Your task to perform on an android device: Go to sound settings Image 0: 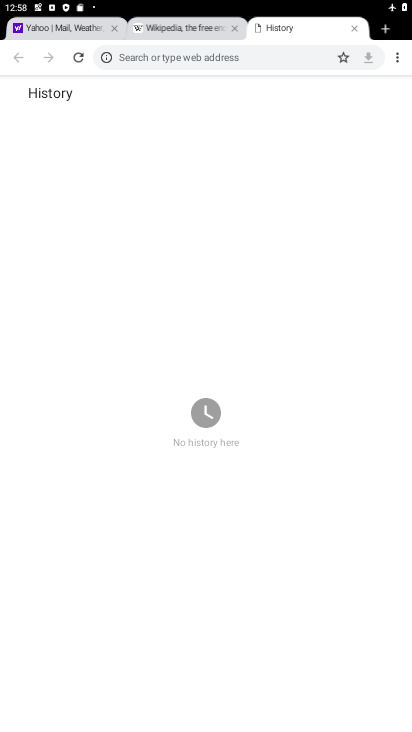
Step 0: press home button
Your task to perform on an android device: Go to sound settings Image 1: 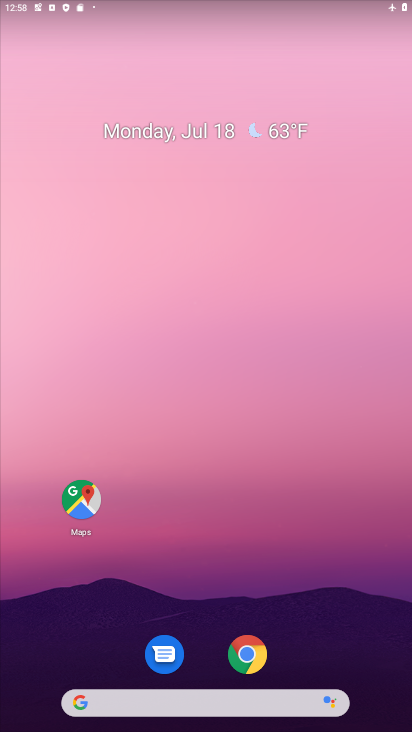
Step 1: drag from (183, 582) to (204, 193)
Your task to perform on an android device: Go to sound settings Image 2: 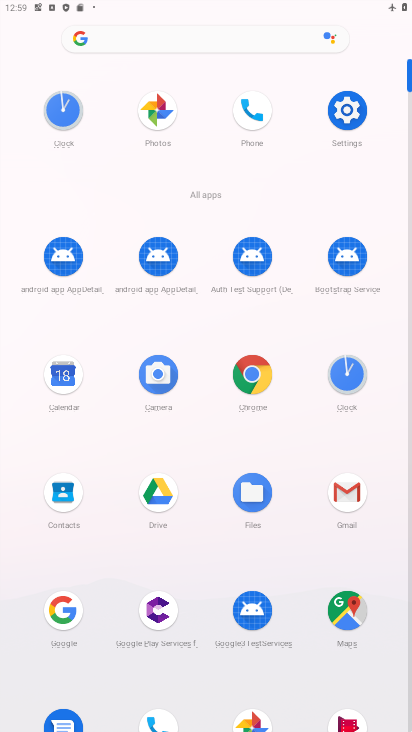
Step 2: click (350, 109)
Your task to perform on an android device: Go to sound settings Image 3: 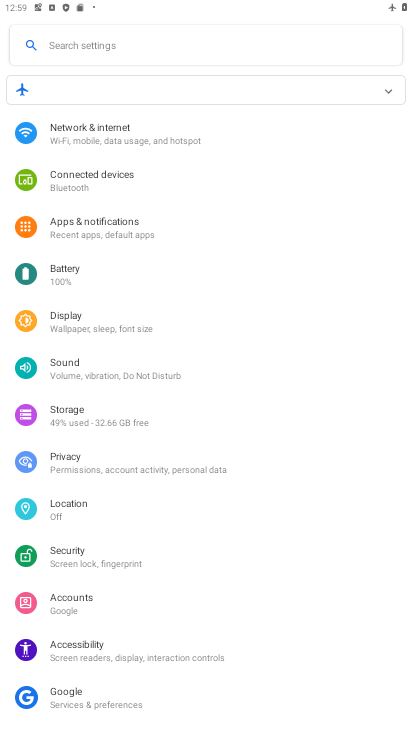
Step 3: drag from (113, 564) to (134, 467)
Your task to perform on an android device: Go to sound settings Image 4: 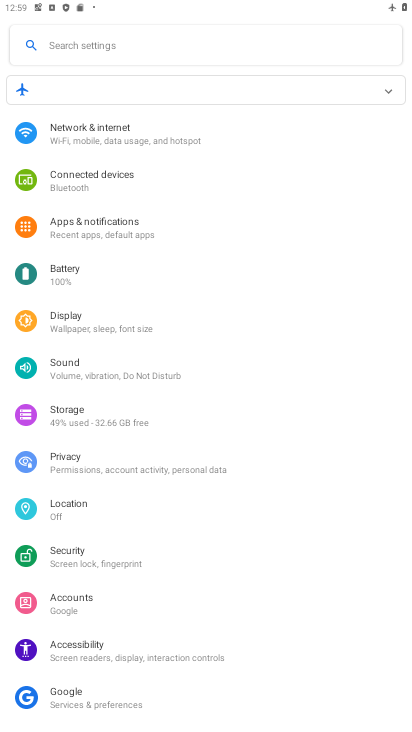
Step 4: click (116, 376)
Your task to perform on an android device: Go to sound settings Image 5: 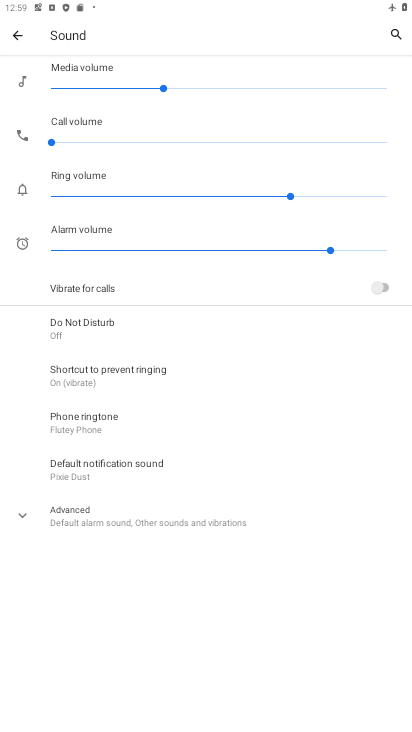
Step 5: task complete